Your task to perform on an android device: set the timer Image 0: 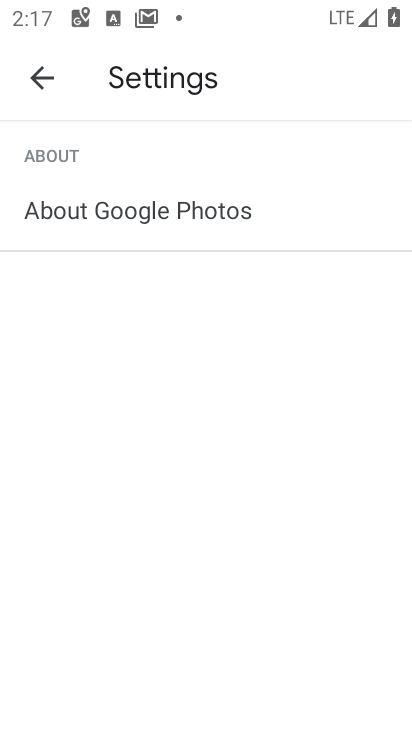
Step 0: press home button
Your task to perform on an android device: set the timer Image 1: 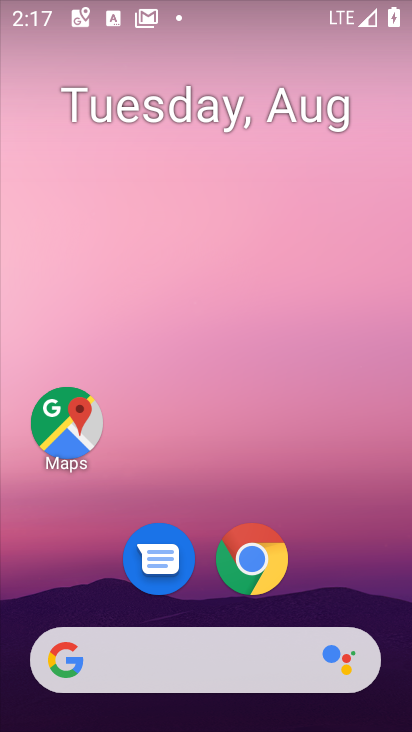
Step 1: drag from (217, 500) to (177, 139)
Your task to perform on an android device: set the timer Image 2: 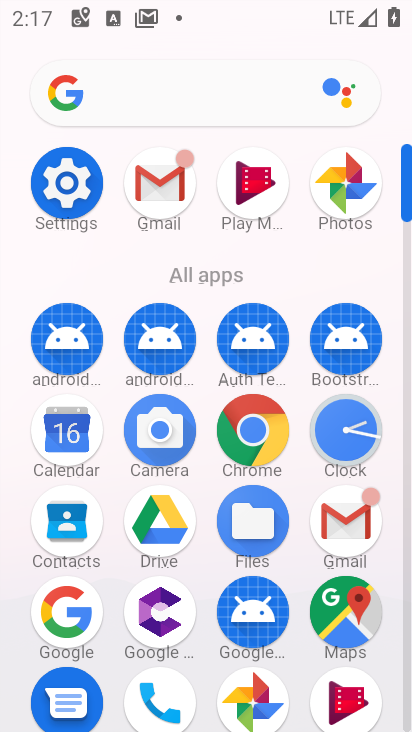
Step 2: click (335, 429)
Your task to perform on an android device: set the timer Image 3: 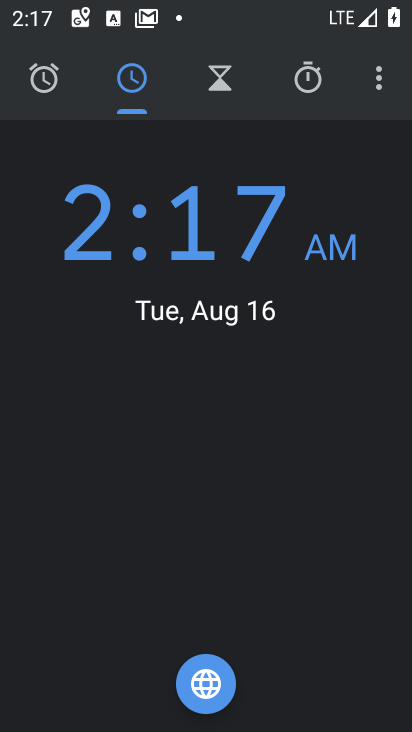
Step 3: click (210, 91)
Your task to perform on an android device: set the timer Image 4: 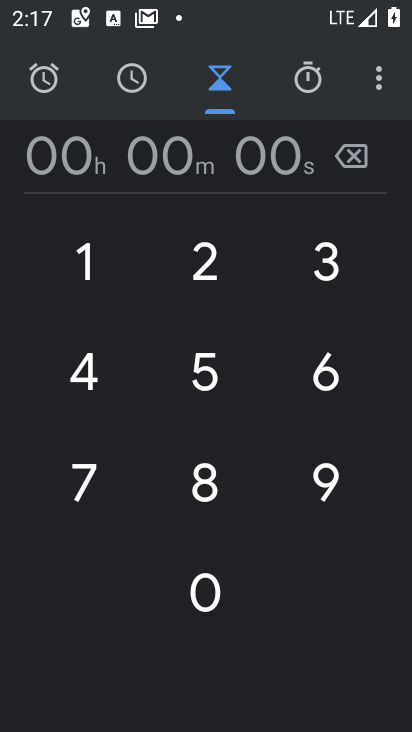
Step 4: type "10"
Your task to perform on an android device: set the timer Image 5: 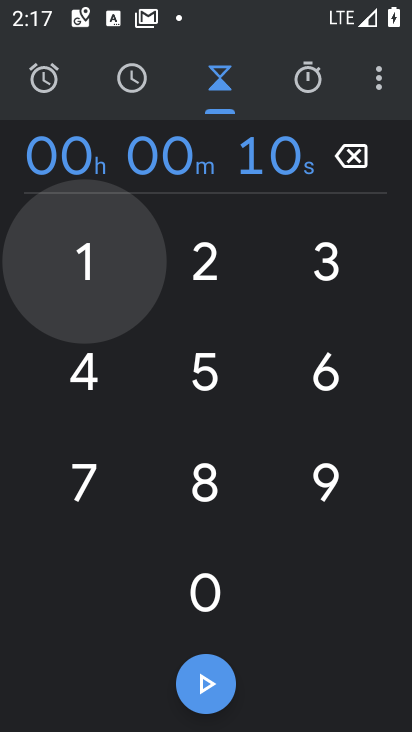
Step 5: click (206, 661)
Your task to perform on an android device: set the timer Image 6: 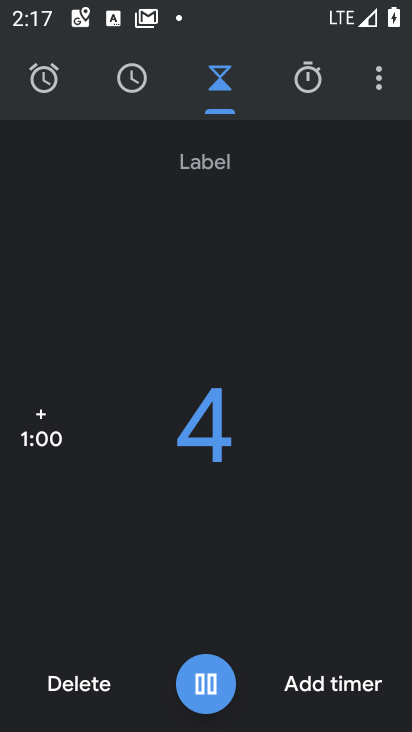
Step 6: task complete